Your task to perform on an android device: Open Youtube and go to "Your channel" Image 0: 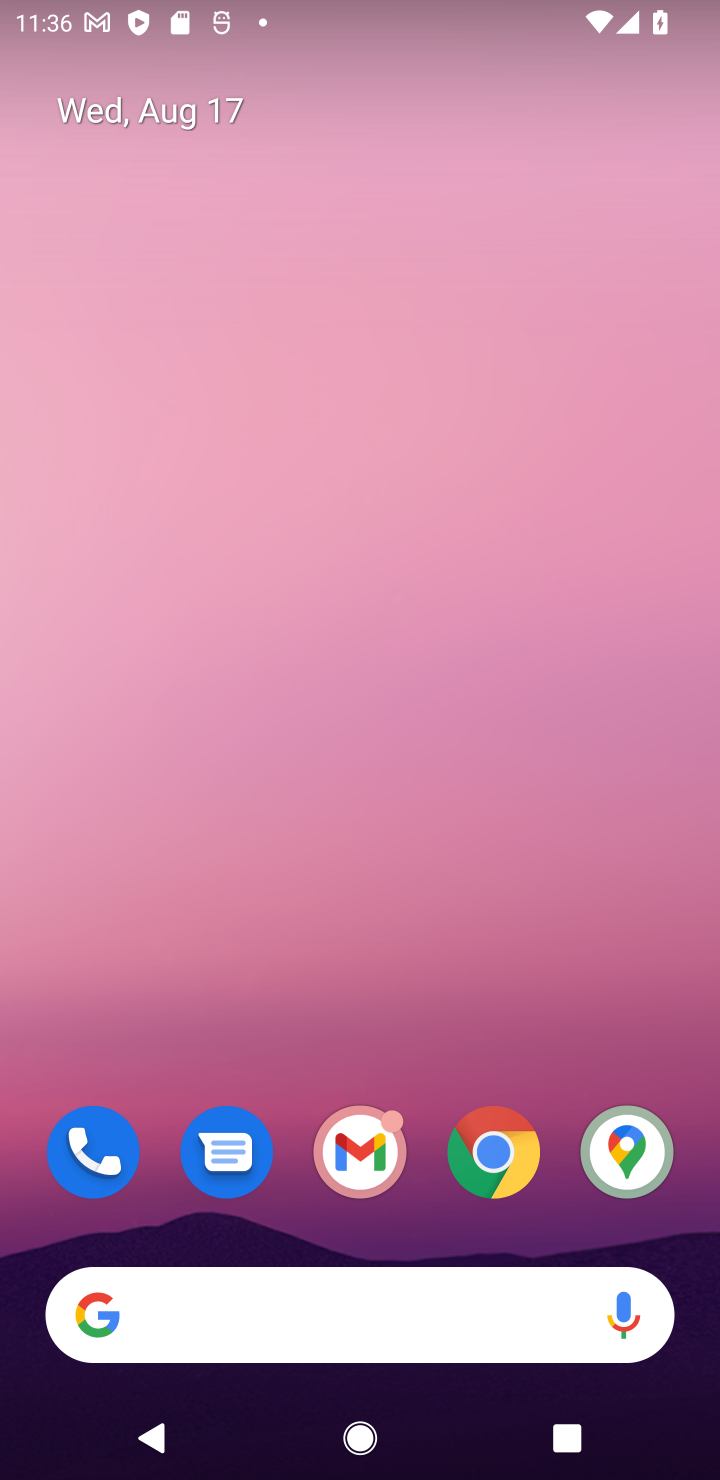
Step 0: drag from (692, 1190) to (449, 91)
Your task to perform on an android device: Open Youtube and go to "Your channel" Image 1: 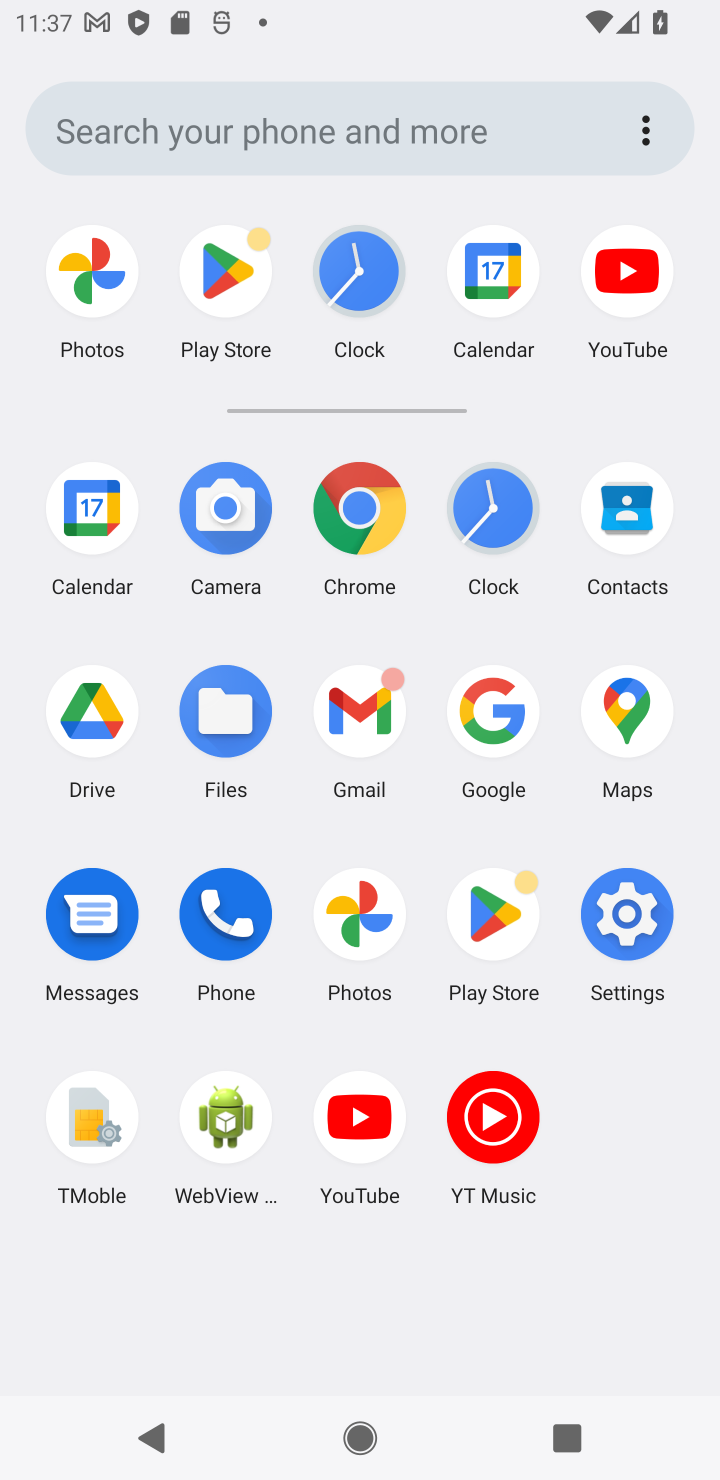
Step 1: click (369, 1128)
Your task to perform on an android device: Open Youtube and go to "Your channel" Image 2: 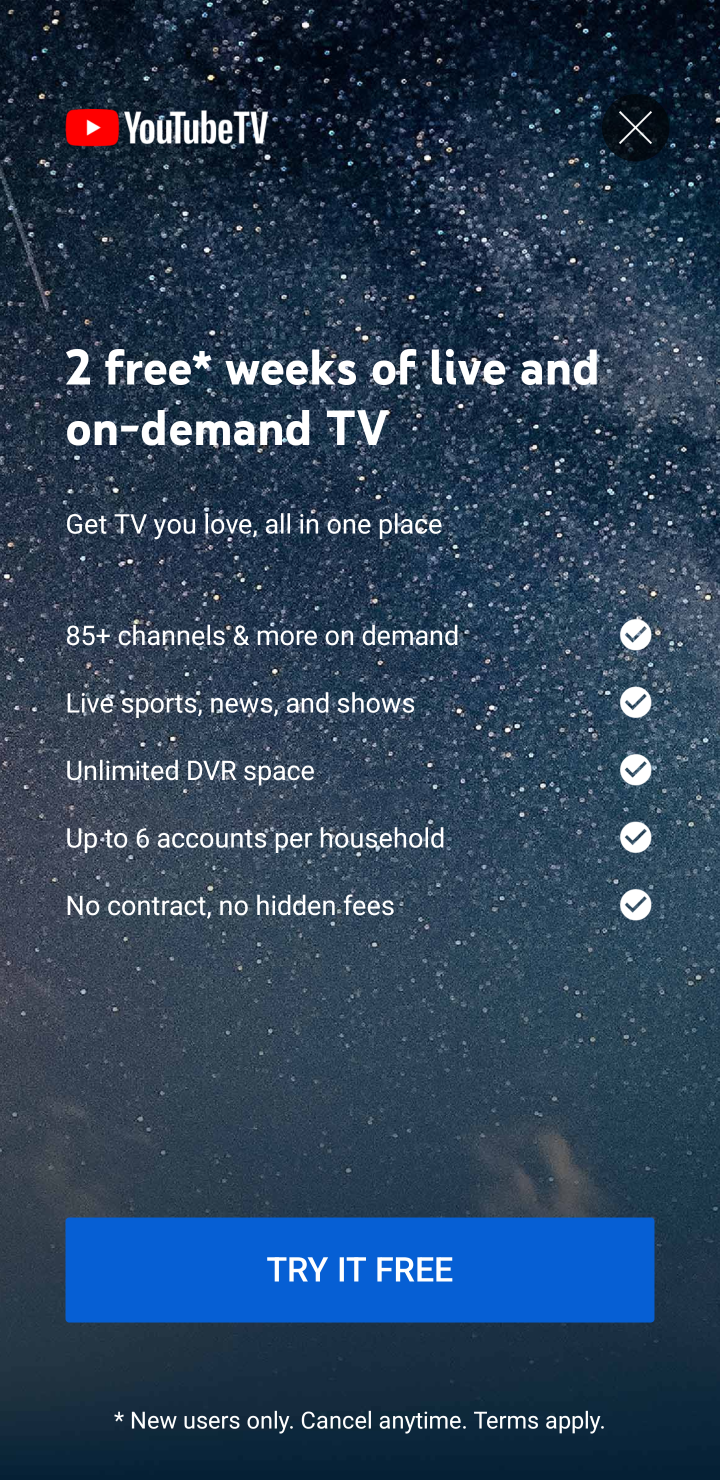
Step 2: press back button
Your task to perform on an android device: Open Youtube and go to "Your channel" Image 3: 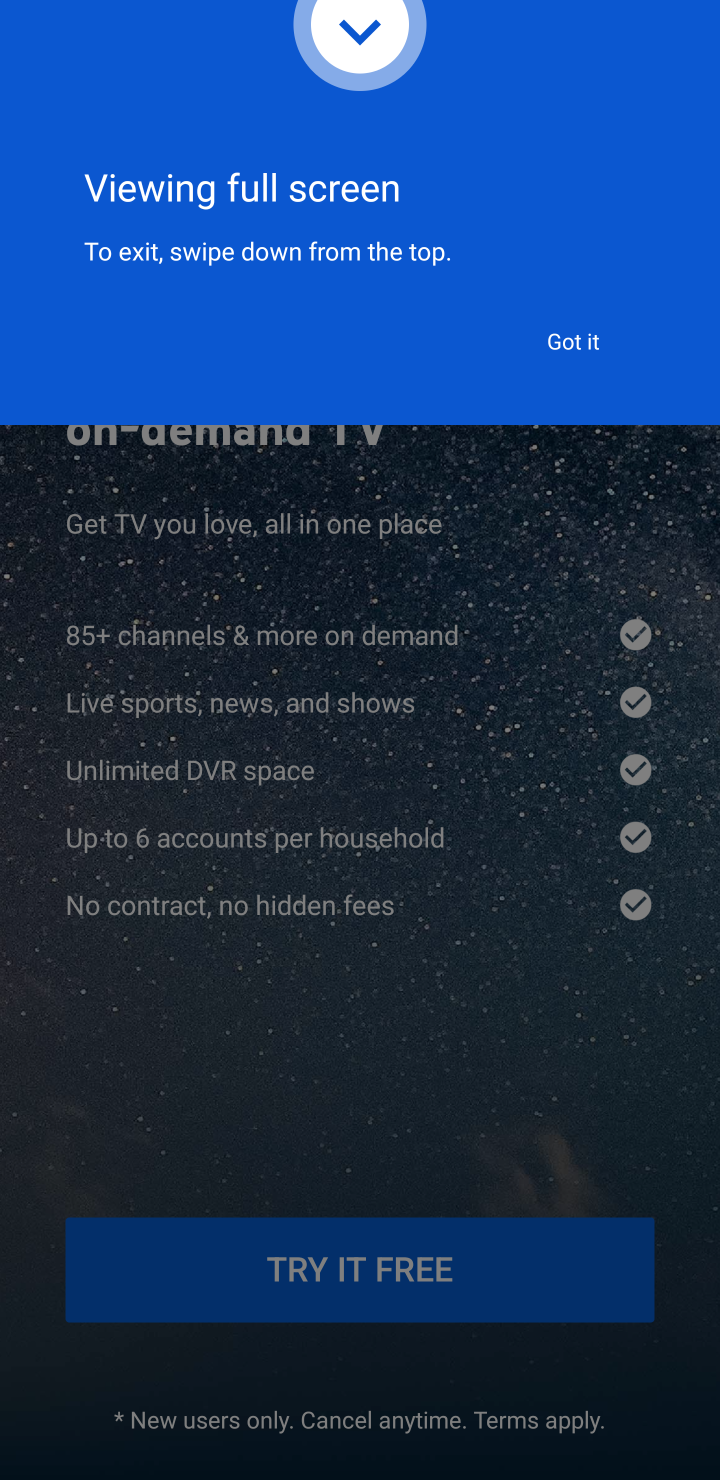
Step 3: click (551, 360)
Your task to perform on an android device: Open Youtube and go to "Your channel" Image 4: 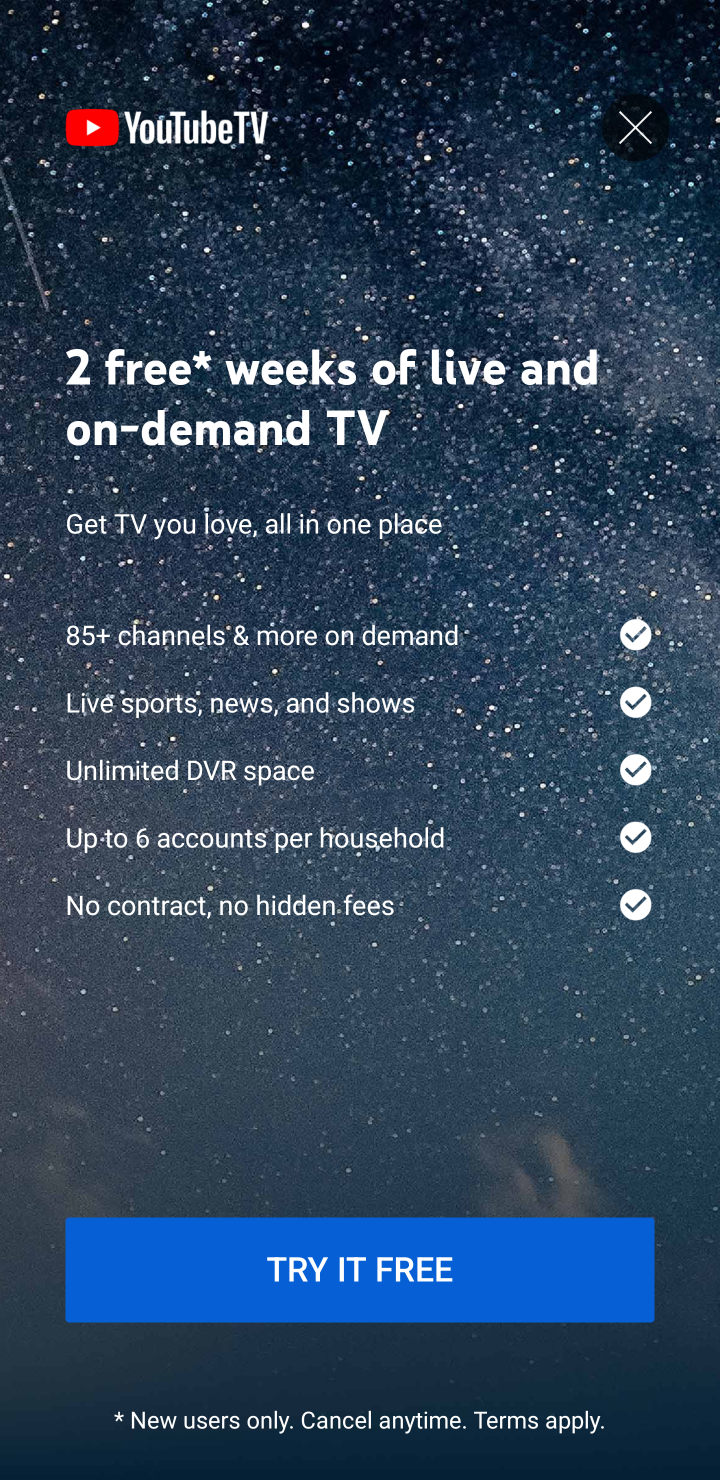
Step 4: click (621, 148)
Your task to perform on an android device: Open Youtube and go to "Your channel" Image 5: 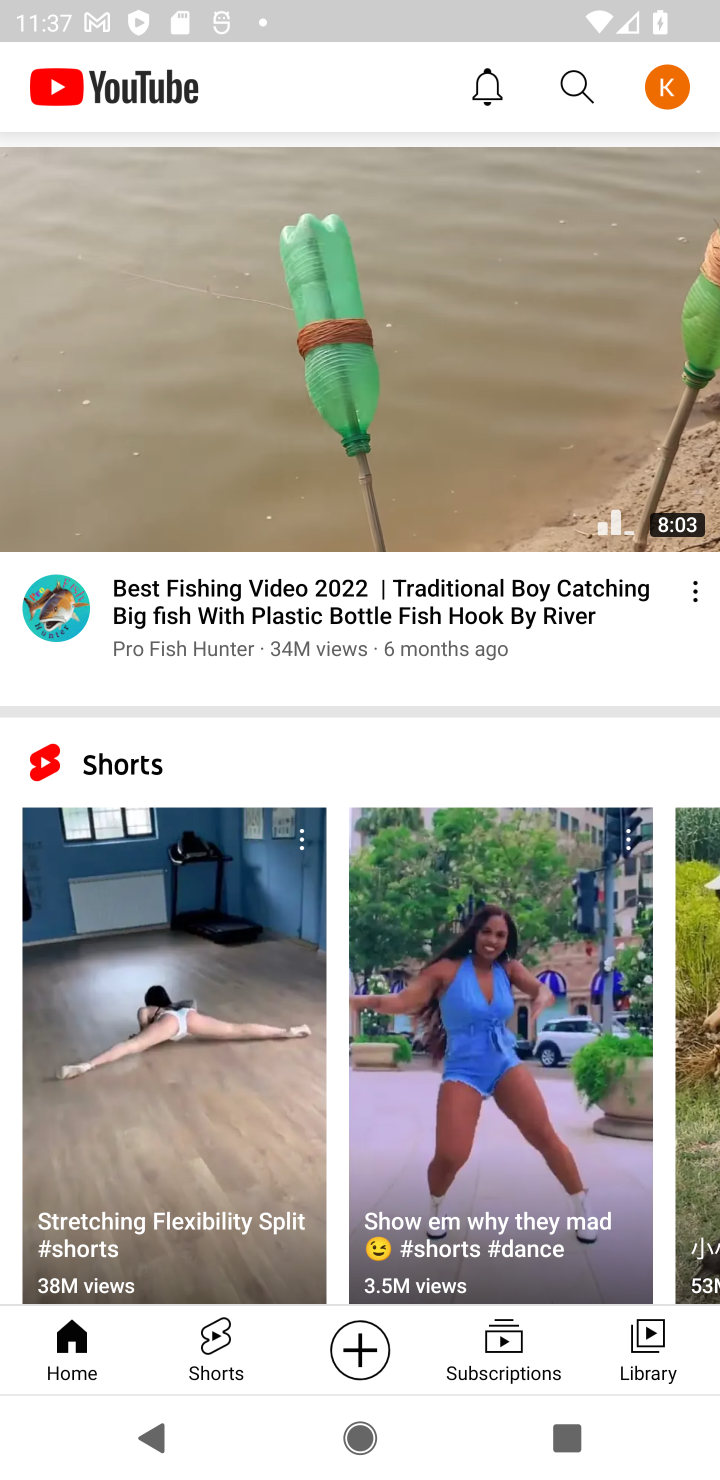
Step 5: task complete